Your task to perform on an android device: change the clock display to digital Image 0: 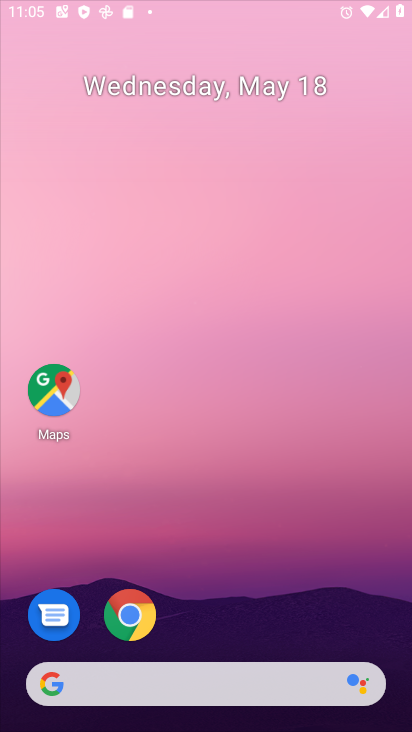
Step 0: click (213, 122)
Your task to perform on an android device: change the clock display to digital Image 1: 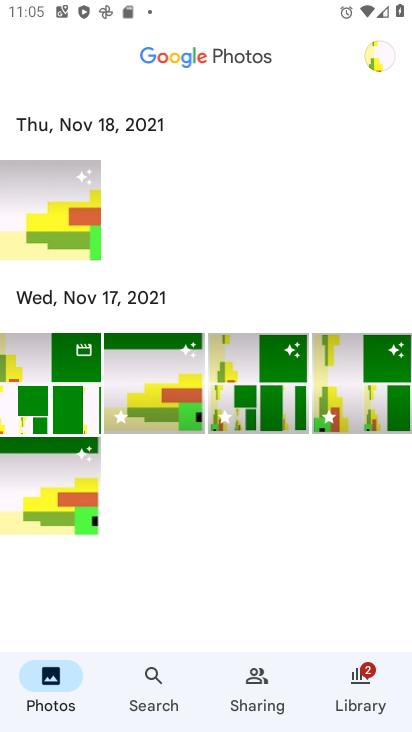
Step 1: press home button
Your task to perform on an android device: change the clock display to digital Image 2: 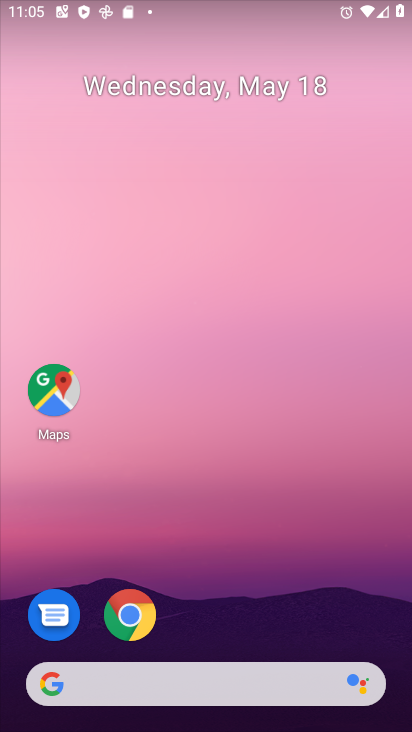
Step 2: drag from (208, 658) to (220, 217)
Your task to perform on an android device: change the clock display to digital Image 3: 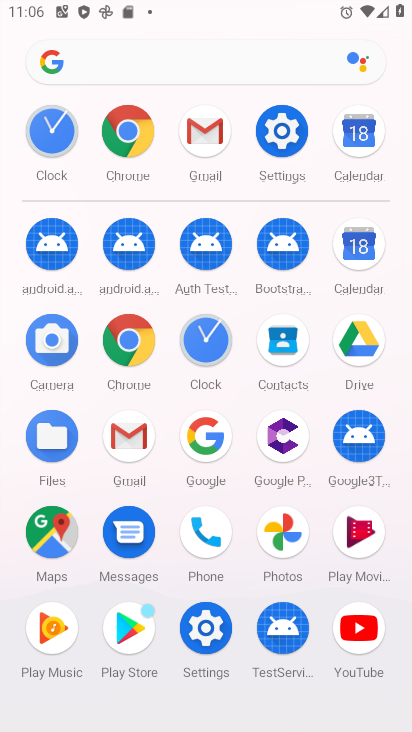
Step 3: click (196, 355)
Your task to perform on an android device: change the clock display to digital Image 4: 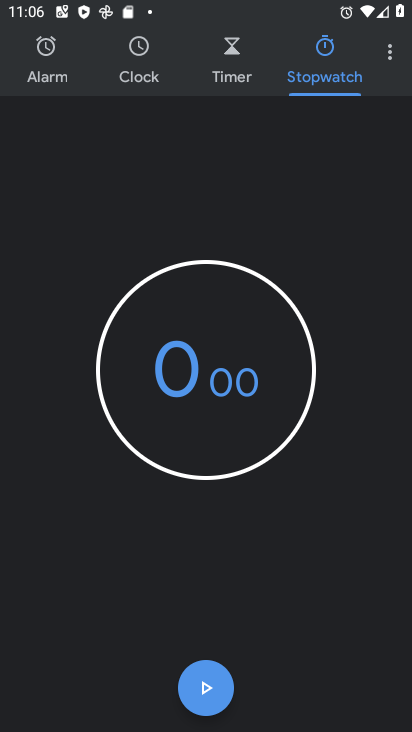
Step 4: click (381, 58)
Your task to perform on an android device: change the clock display to digital Image 5: 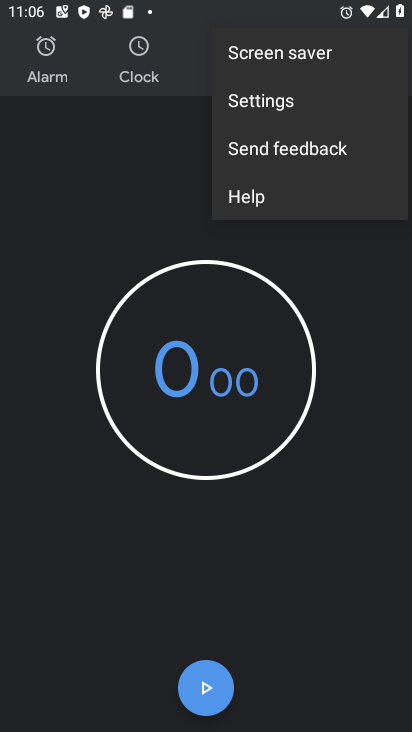
Step 5: click (285, 104)
Your task to perform on an android device: change the clock display to digital Image 6: 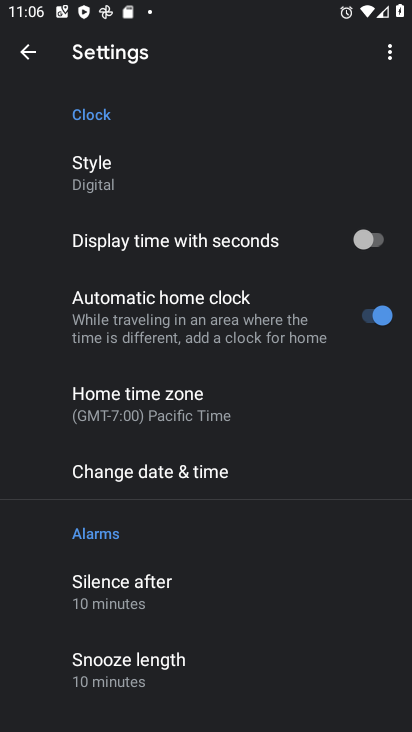
Step 6: task complete